Your task to perform on an android device: toggle show notifications on the lock screen Image 0: 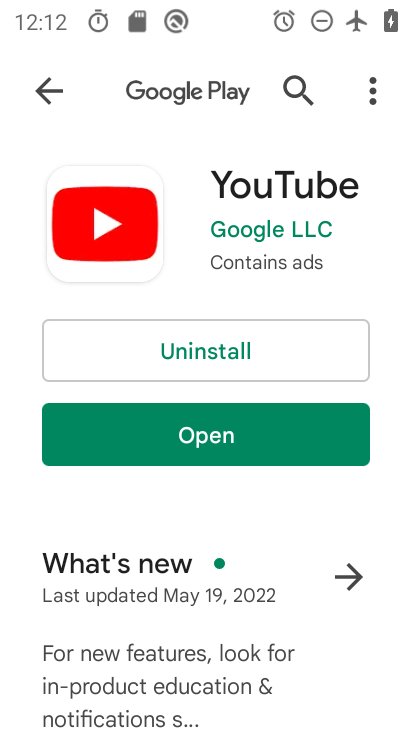
Step 0: press home button
Your task to perform on an android device: toggle show notifications on the lock screen Image 1: 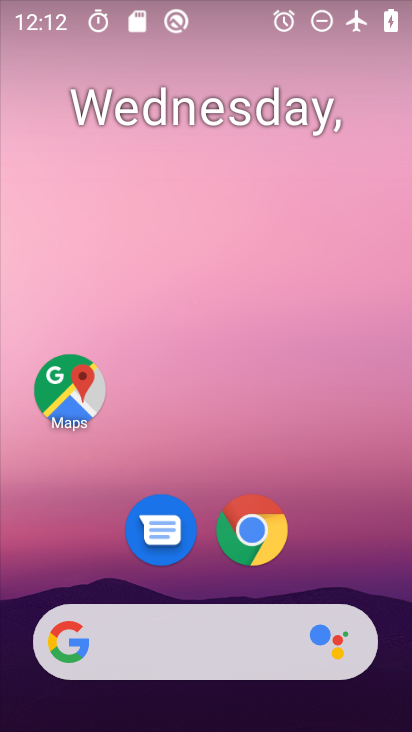
Step 1: drag from (324, 526) to (291, 41)
Your task to perform on an android device: toggle show notifications on the lock screen Image 2: 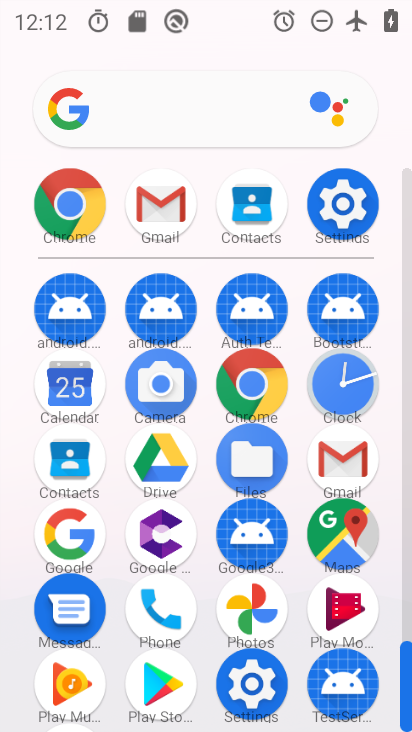
Step 2: click (330, 223)
Your task to perform on an android device: toggle show notifications on the lock screen Image 3: 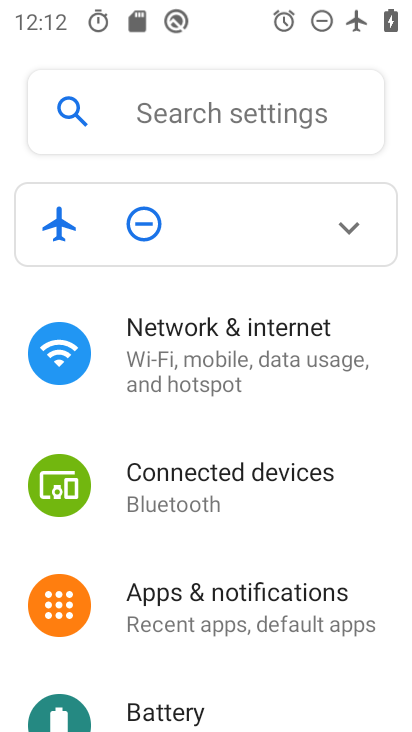
Step 3: click (257, 612)
Your task to perform on an android device: toggle show notifications on the lock screen Image 4: 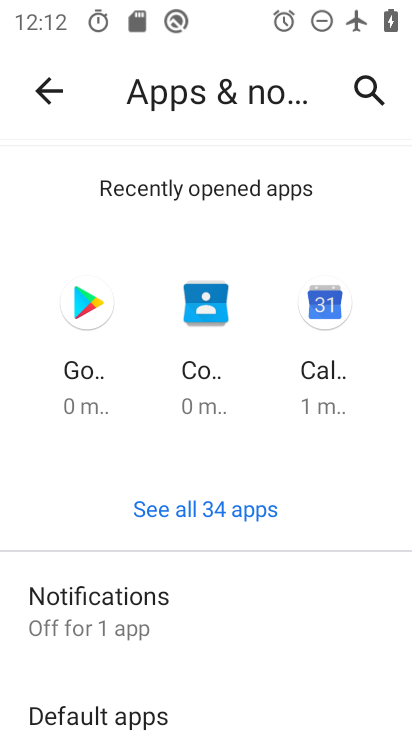
Step 4: click (138, 605)
Your task to perform on an android device: toggle show notifications on the lock screen Image 5: 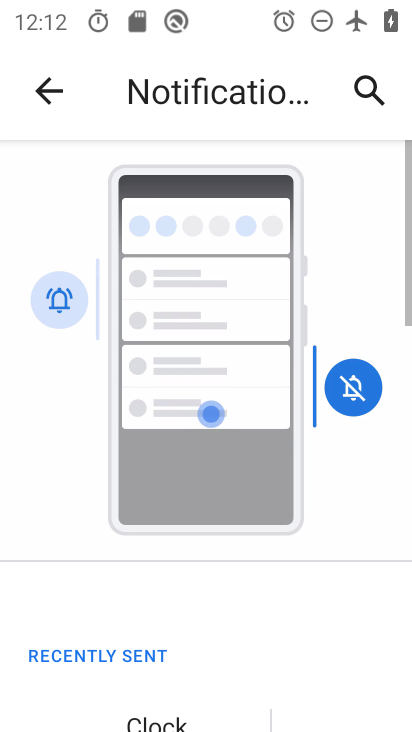
Step 5: drag from (253, 658) to (290, 116)
Your task to perform on an android device: toggle show notifications on the lock screen Image 6: 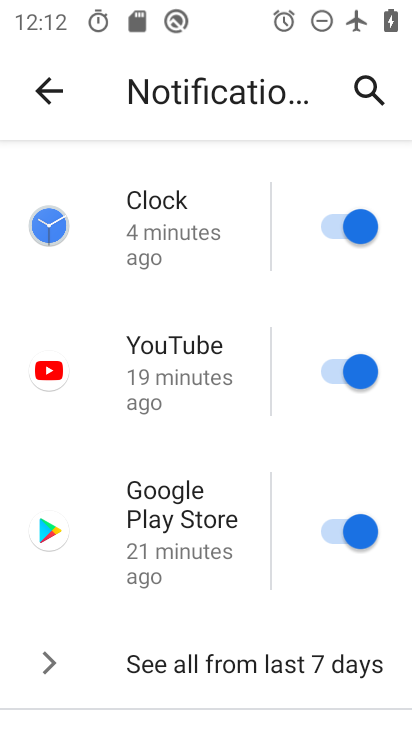
Step 6: drag from (205, 634) to (218, 122)
Your task to perform on an android device: toggle show notifications on the lock screen Image 7: 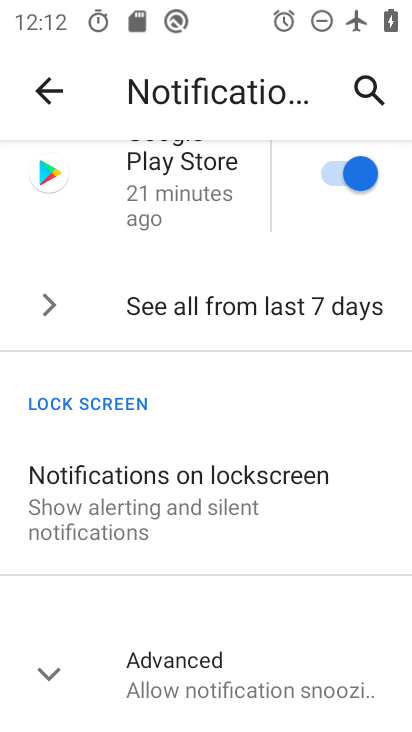
Step 7: click (187, 518)
Your task to perform on an android device: toggle show notifications on the lock screen Image 8: 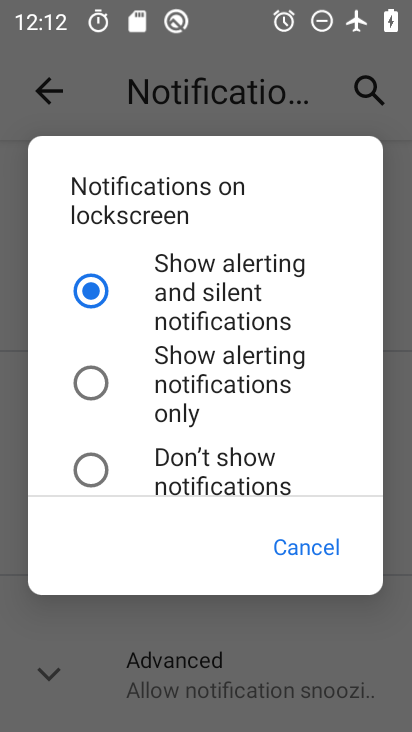
Step 8: click (208, 376)
Your task to perform on an android device: toggle show notifications on the lock screen Image 9: 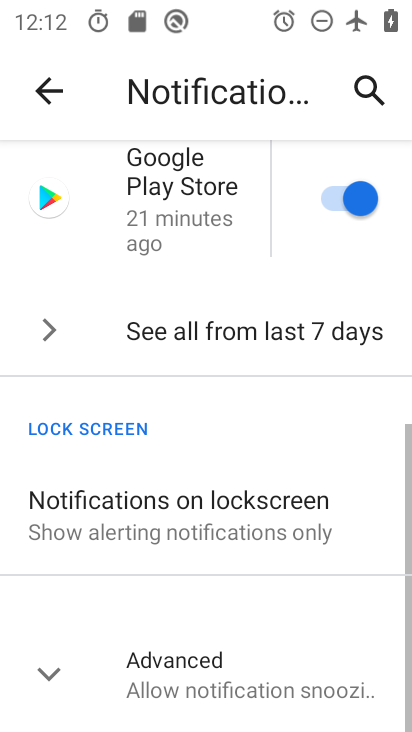
Step 9: task complete